Your task to perform on an android device: Go to notification settings Image 0: 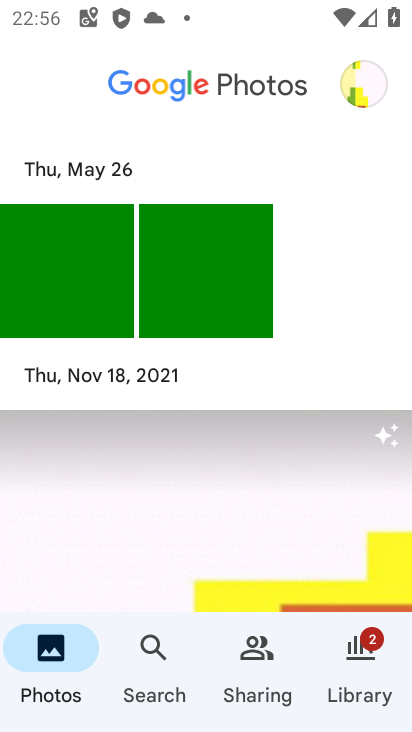
Step 0: press home button
Your task to perform on an android device: Go to notification settings Image 1: 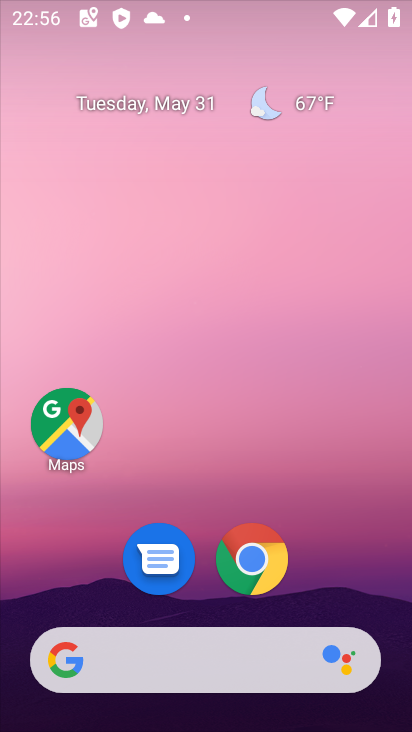
Step 1: drag from (317, 572) to (329, 60)
Your task to perform on an android device: Go to notification settings Image 2: 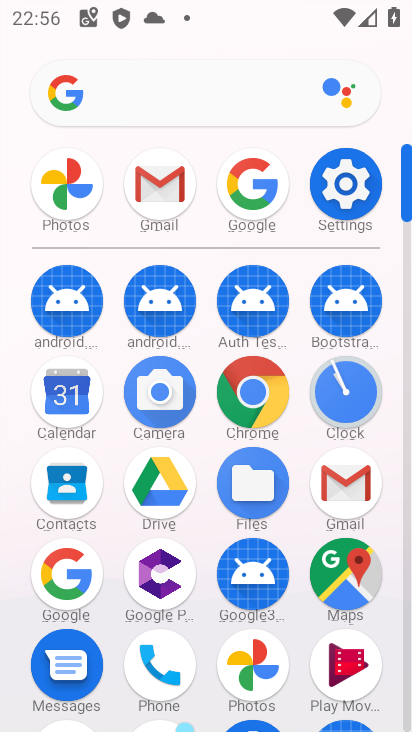
Step 2: click (344, 185)
Your task to perform on an android device: Go to notification settings Image 3: 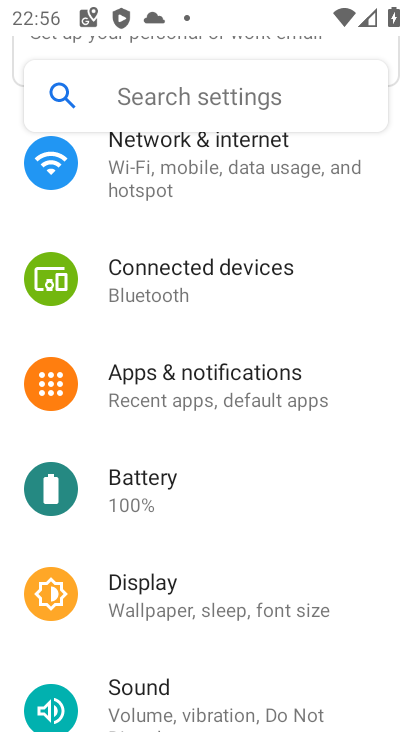
Step 3: click (223, 398)
Your task to perform on an android device: Go to notification settings Image 4: 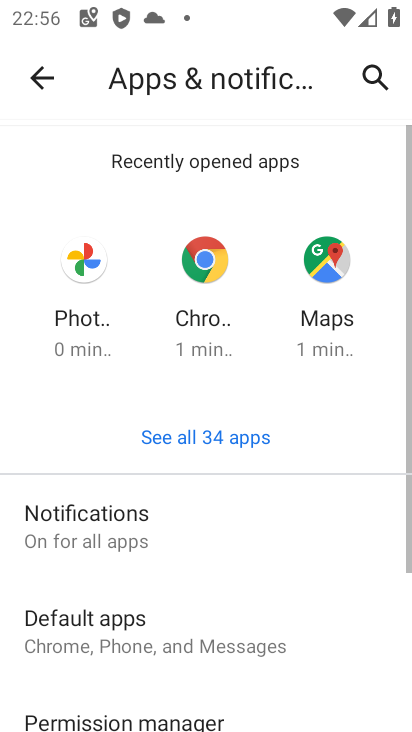
Step 4: click (160, 521)
Your task to perform on an android device: Go to notification settings Image 5: 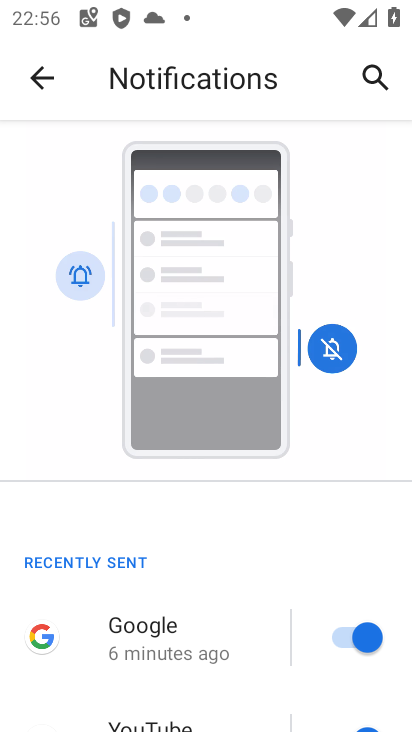
Step 5: task complete